Your task to perform on an android device: Go to settings Image 0: 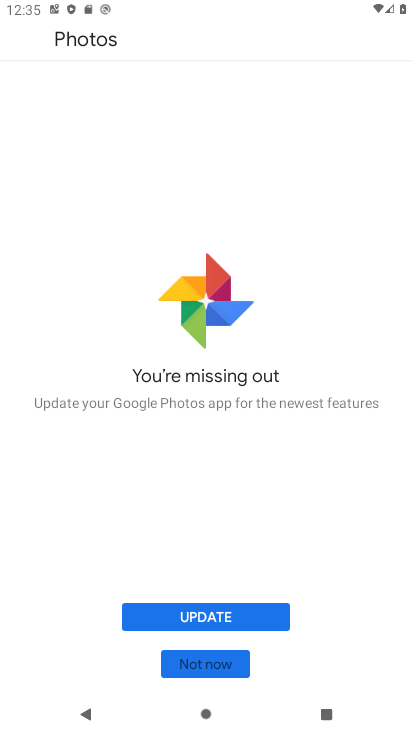
Step 0: press home button
Your task to perform on an android device: Go to settings Image 1: 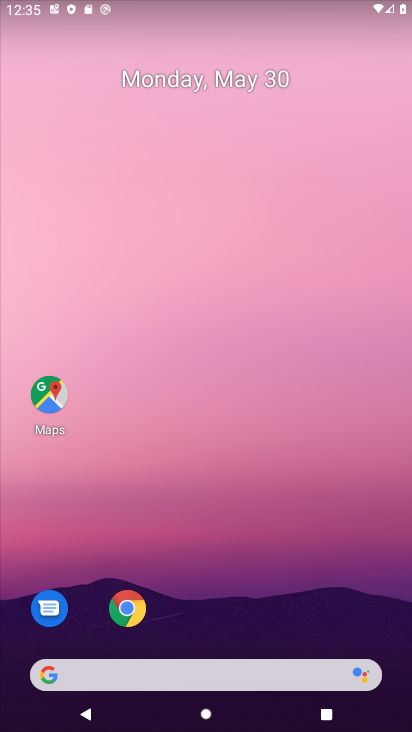
Step 1: drag from (258, 589) to (274, 12)
Your task to perform on an android device: Go to settings Image 2: 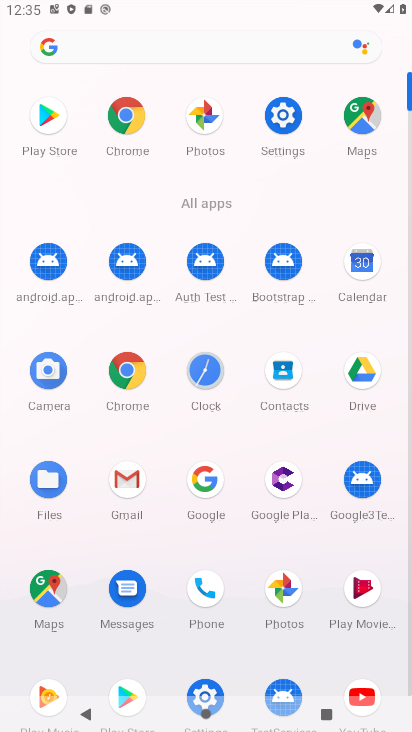
Step 2: click (278, 184)
Your task to perform on an android device: Go to settings Image 3: 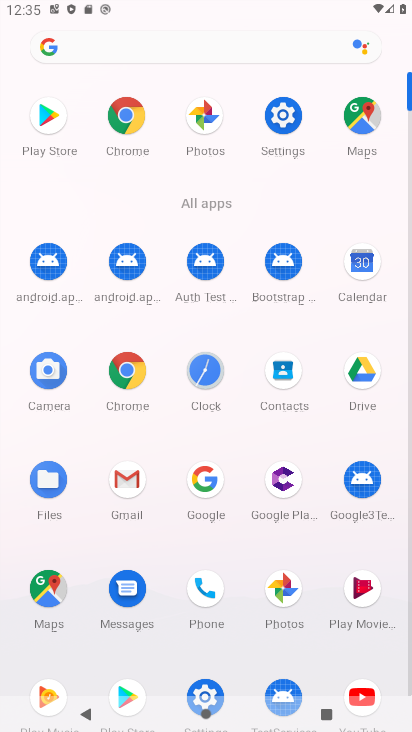
Step 3: click (295, 130)
Your task to perform on an android device: Go to settings Image 4: 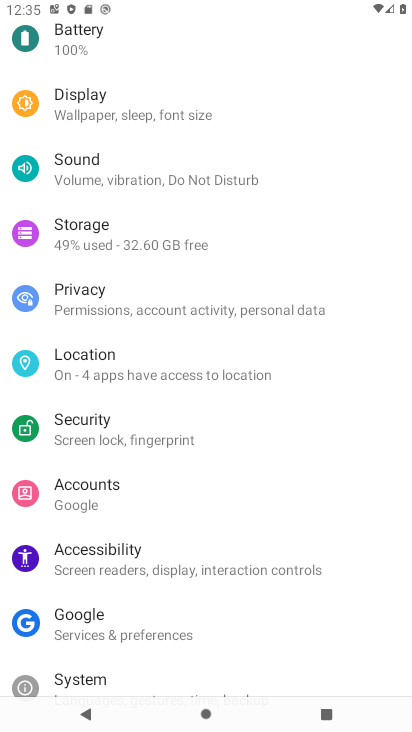
Step 4: task complete